Your task to perform on an android device: Open battery settings Image 0: 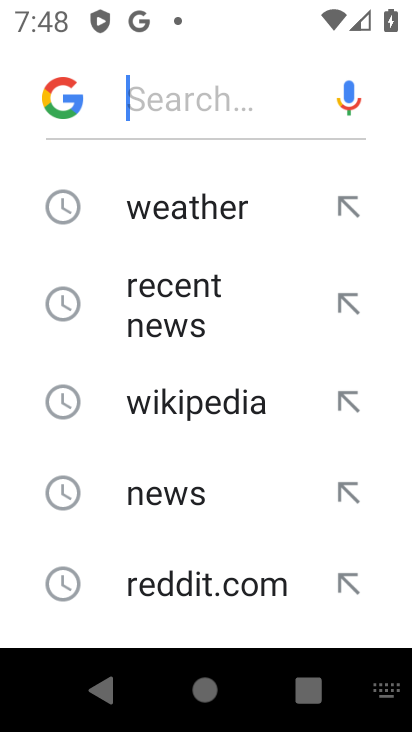
Step 0: press home button
Your task to perform on an android device: Open battery settings Image 1: 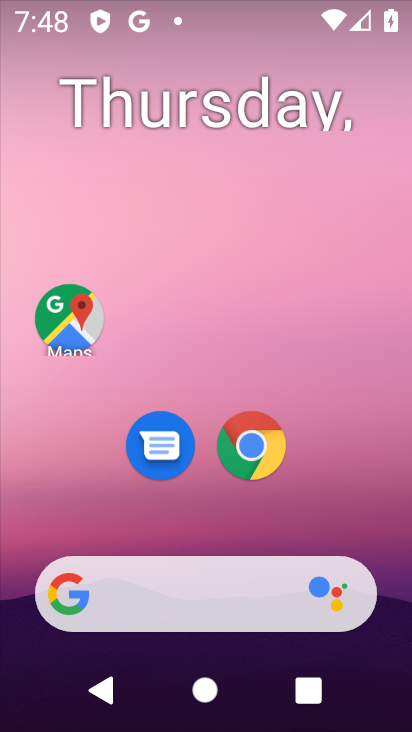
Step 1: drag from (372, 520) to (365, 158)
Your task to perform on an android device: Open battery settings Image 2: 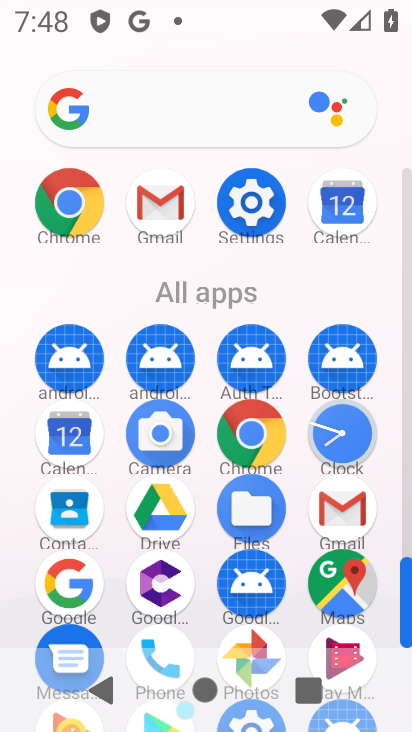
Step 2: click (260, 193)
Your task to perform on an android device: Open battery settings Image 3: 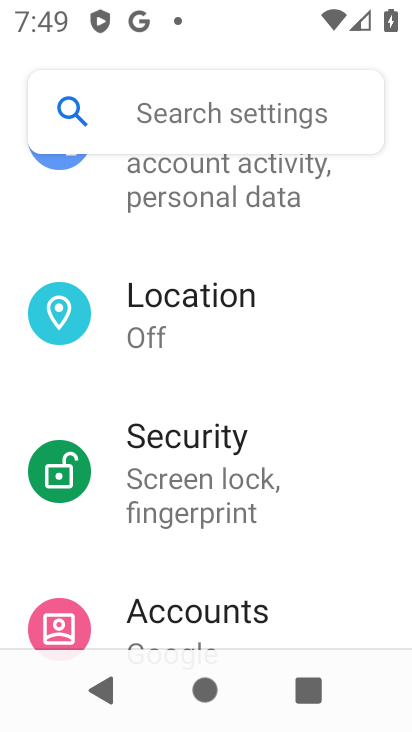
Step 3: drag from (285, 561) to (313, 205)
Your task to perform on an android device: Open battery settings Image 4: 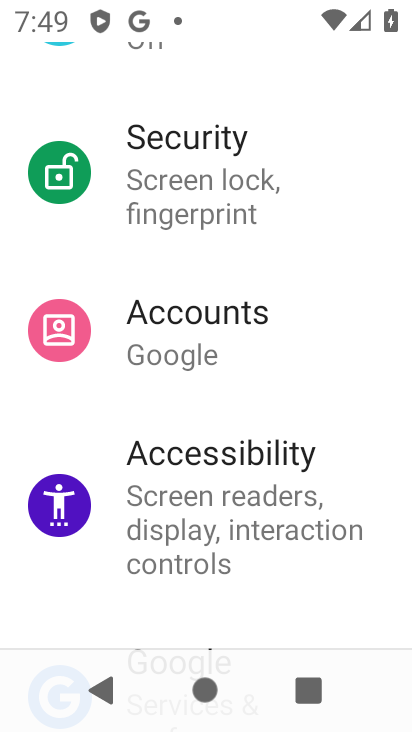
Step 4: drag from (305, 517) to (299, 227)
Your task to perform on an android device: Open battery settings Image 5: 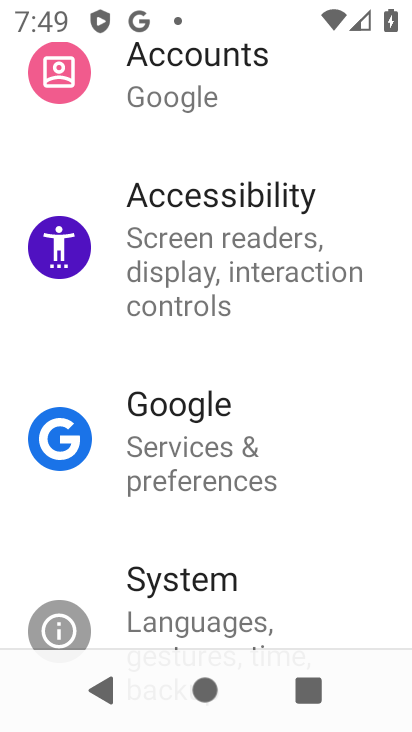
Step 5: drag from (290, 522) to (323, 152)
Your task to perform on an android device: Open battery settings Image 6: 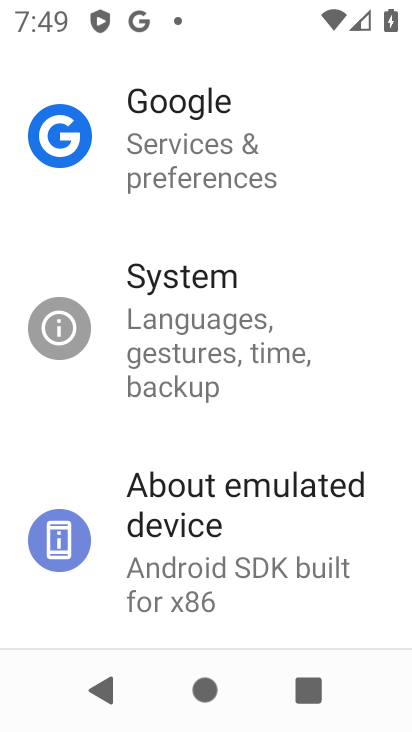
Step 6: drag from (324, 151) to (281, 615)
Your task to perform on an android device: Open battery settings Image 7: 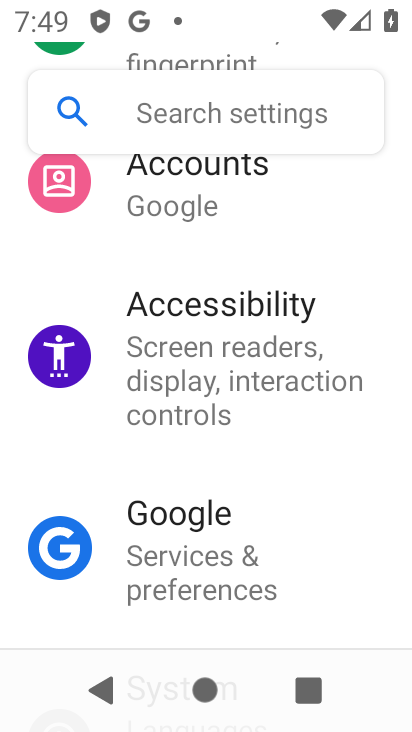
Step 7: drag from (375, 203) to (312, 570)
Your task to perform on an android device: Open battery settings Image 8: 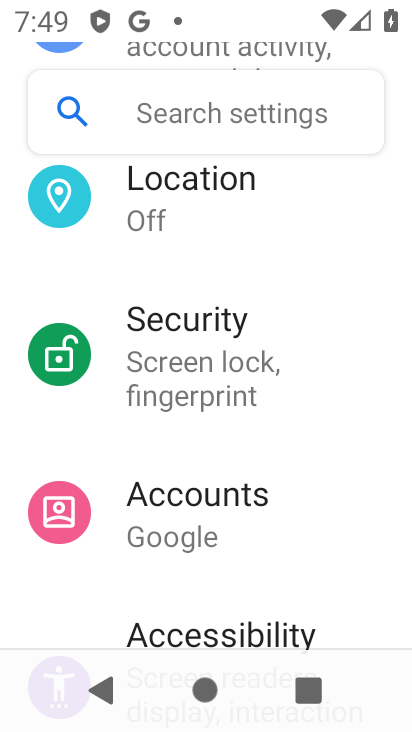
Step 8: drag from (325, 174) to (318, 544)
Your task to perform on an android device: Open battery settings Image 9: 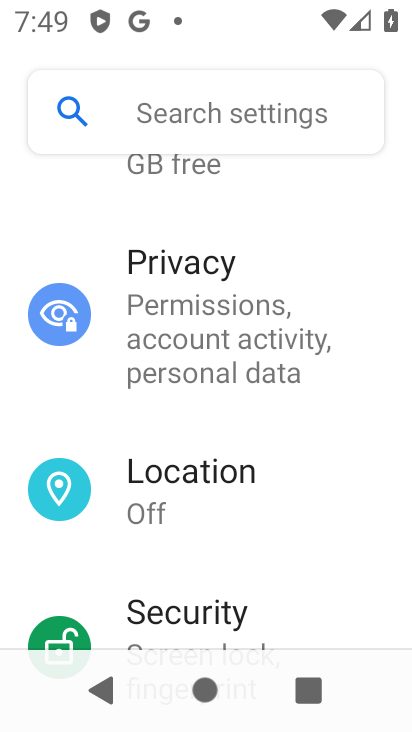
Step 9: drag from (328, 203) to (317, 561)
Your task to perform on an android device: Open battery settings Image 10: 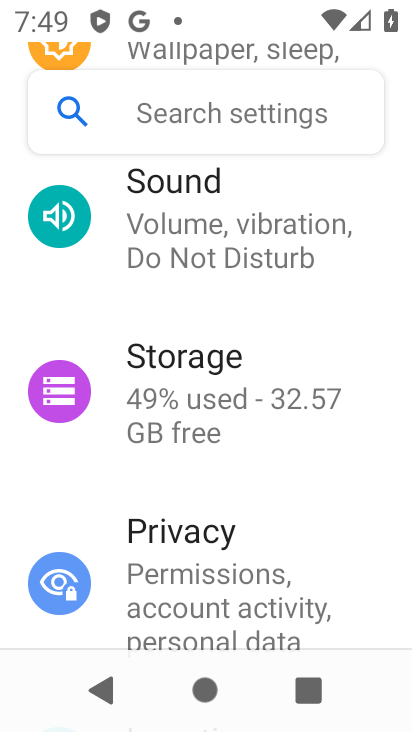
Step 10: drag from (311, 213) to (308, 578)
Your task to perform on an android device: Open battery settings Image 11: 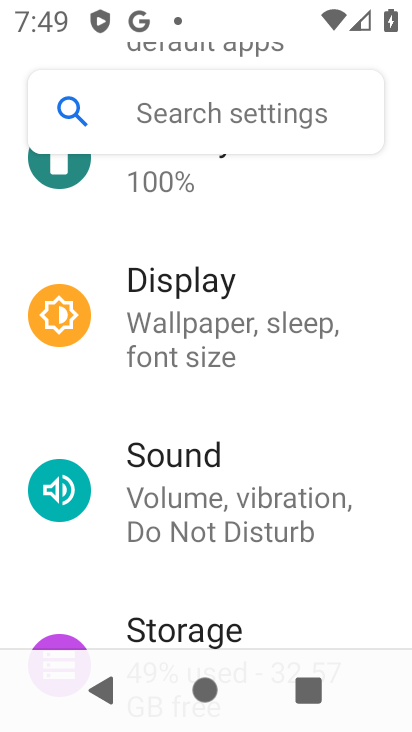
Step 11: drag from (269, 214) to (286, 562)
Your task to perform on an android device: Open battery settings Image 12: 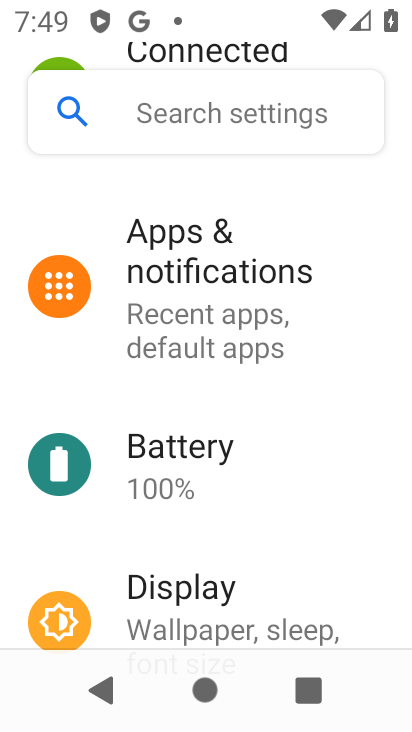
Step 12: click (220, 450)
Your task to perform on an android device: Open battery settings Image 13: 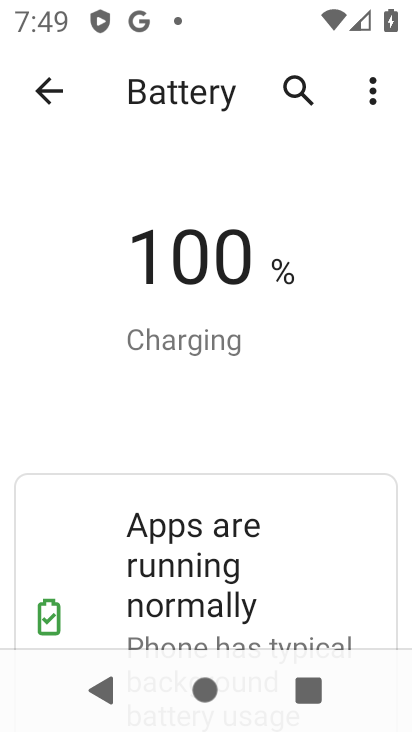
Step 13: task complete